Your task to perform on an android device: turn on wifi Image 0: 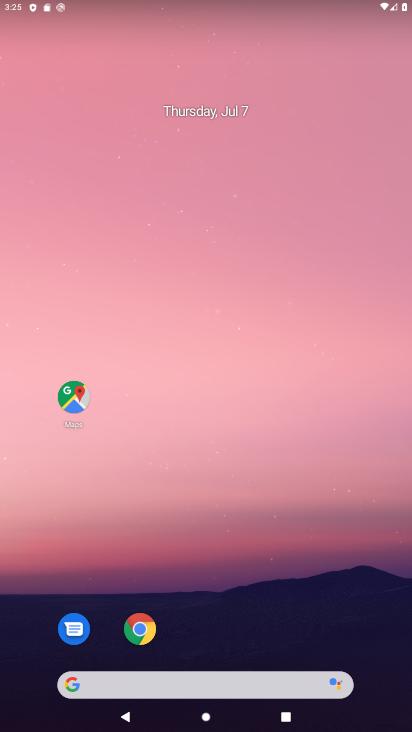
Step 0: drag from (49, 695) to (127, 296)
Your task to perform on an android device: turn on wifi Image 1: 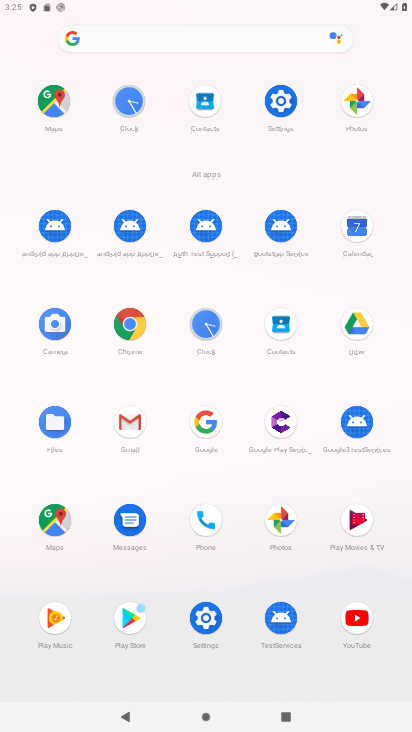
Step 1: click (212, 613)
Your task to perform on an android device: turn on wifi Image 2: 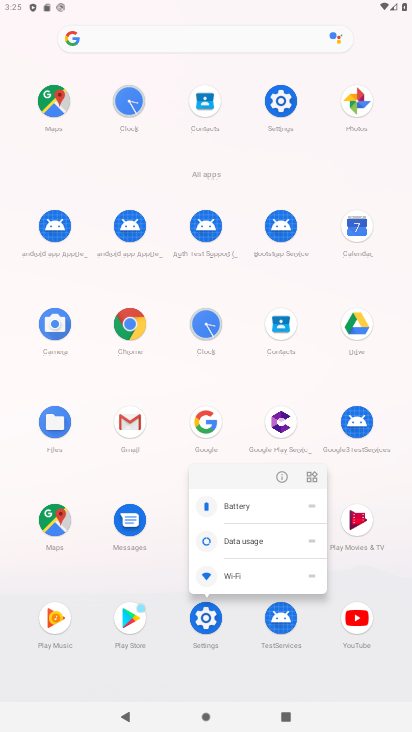
Step 2: click (186, 623)
Your task to perform on an android device: turn on wifi Image 3: 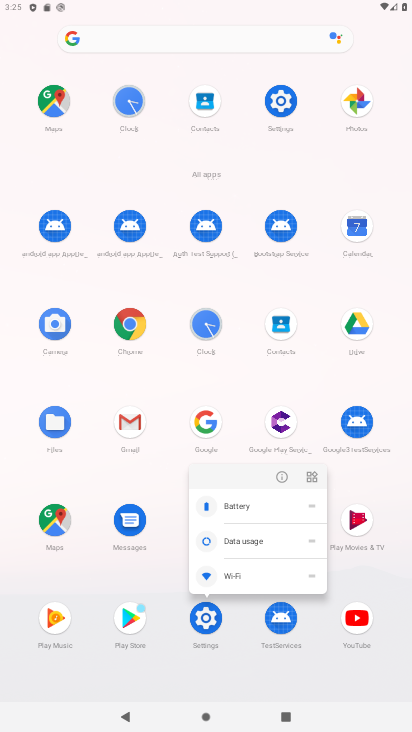
Step 3: click (206, 619)
Your task to perform on an android device: turn on wifi Image 4: 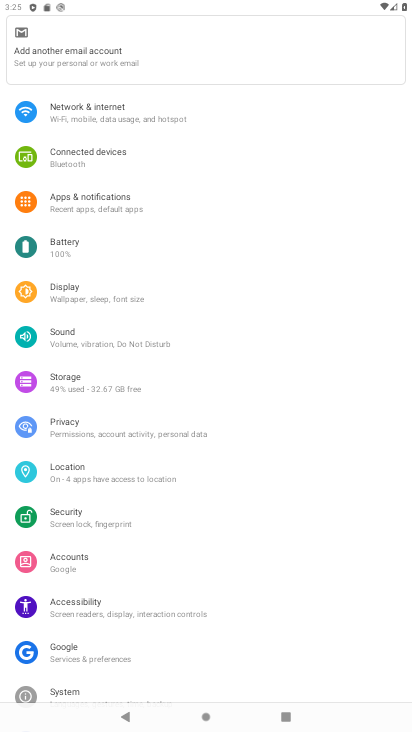
Step 4: click (90, 100)
Your task to perform on an android device: turn on wifi Image 5: 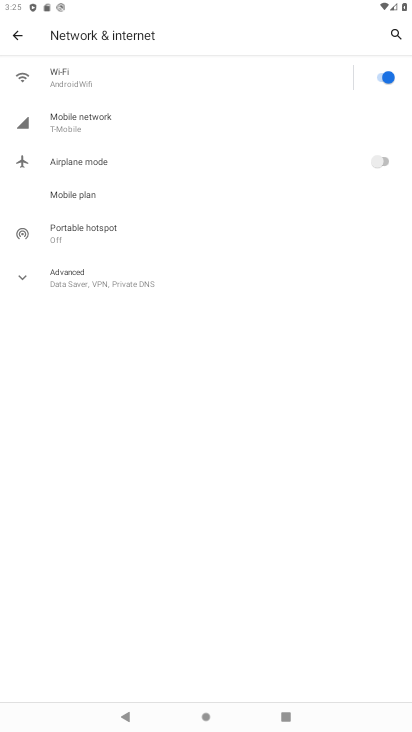
Step 5: task complete